Your task to perform on an android device: open app "McDonald's" (install if not already installed) Image 0: 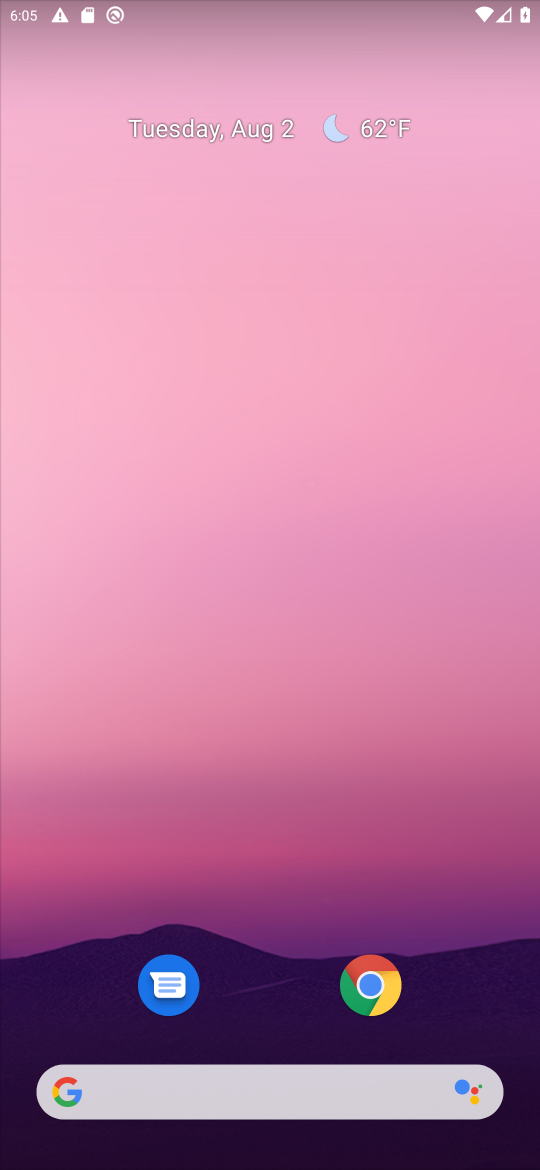
Step 0: drag from (251, 986) to (332, 279)
Your task to perform on an android device: open app "McDonald's" (install if not already installed) Image 1: 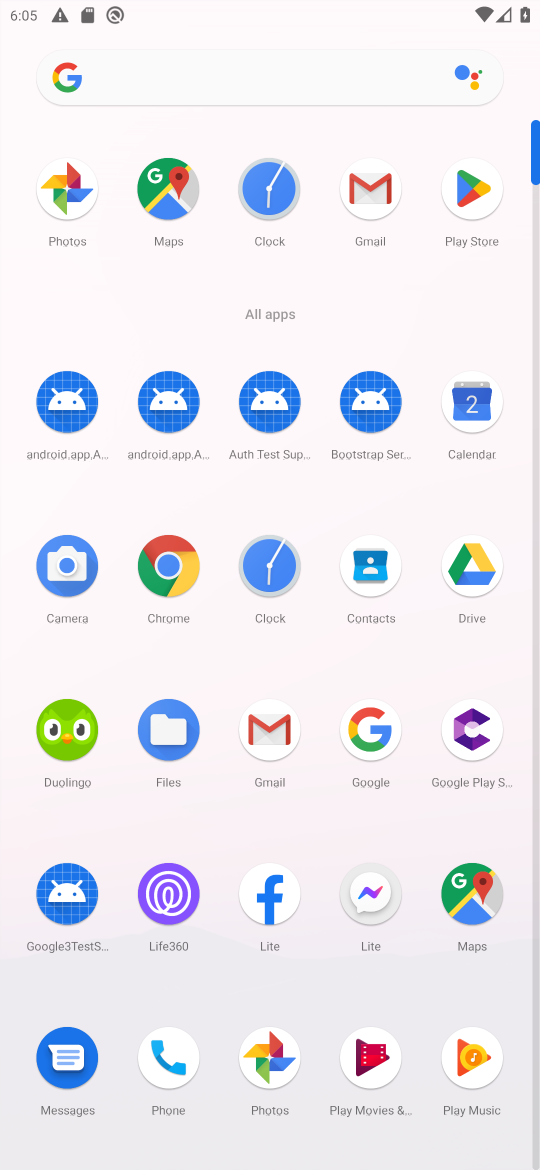
Step 1: click (456, 208)
Your task to perform on an android device: open app "McDonald's" (install if not already installed) Image 2: 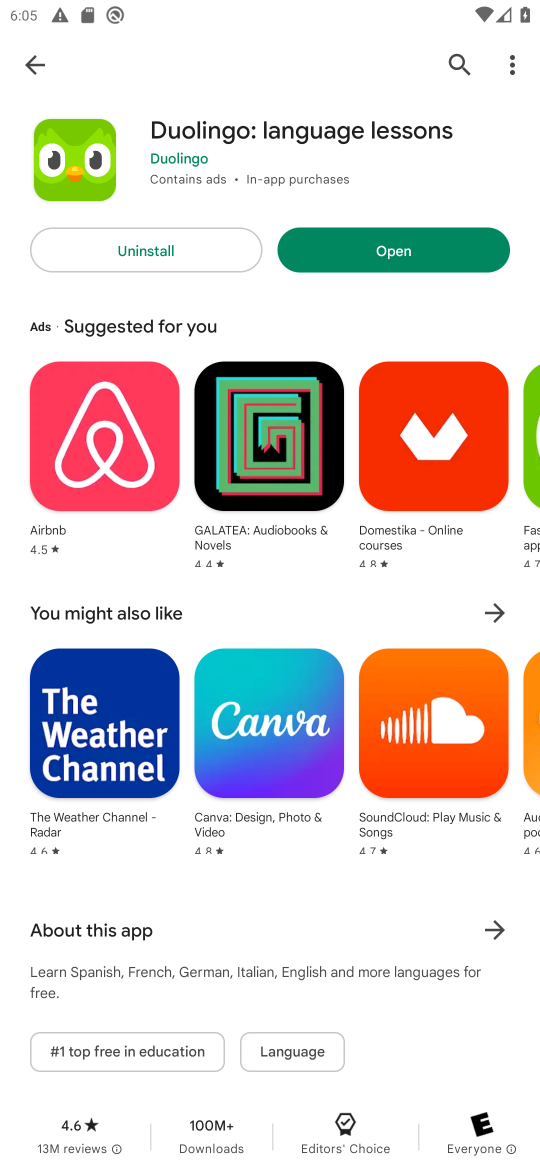
Step 2: click (443, 49)
Your task to perform on an android device: open app "McDonald's" (install if not already installed) Image 3: 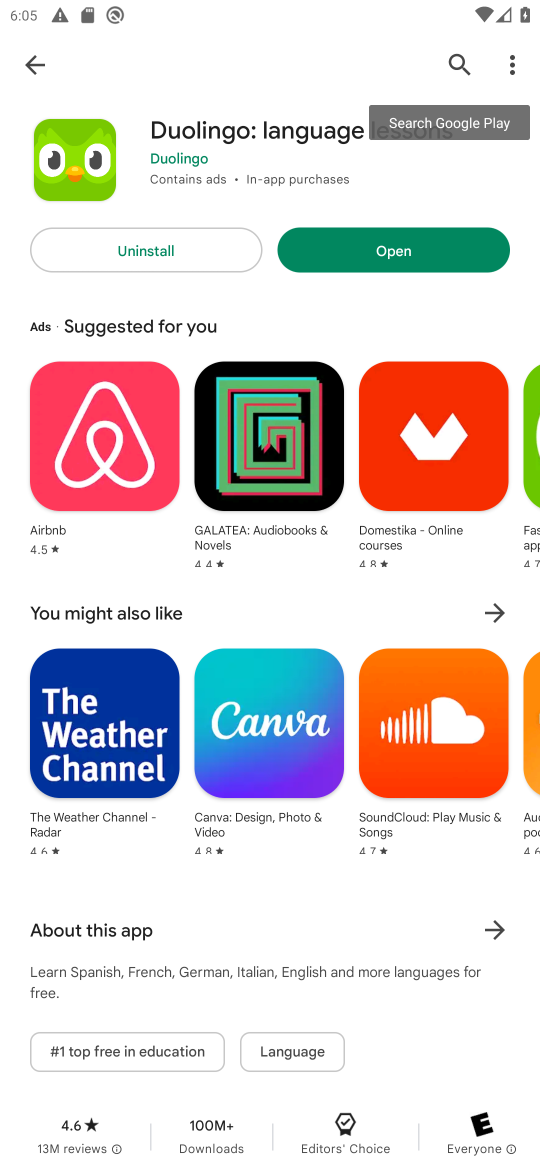
Step 3: click (453, 61)
Your task to perform on an android device: open app "McDonald's" (install if not already installed) Image 4: 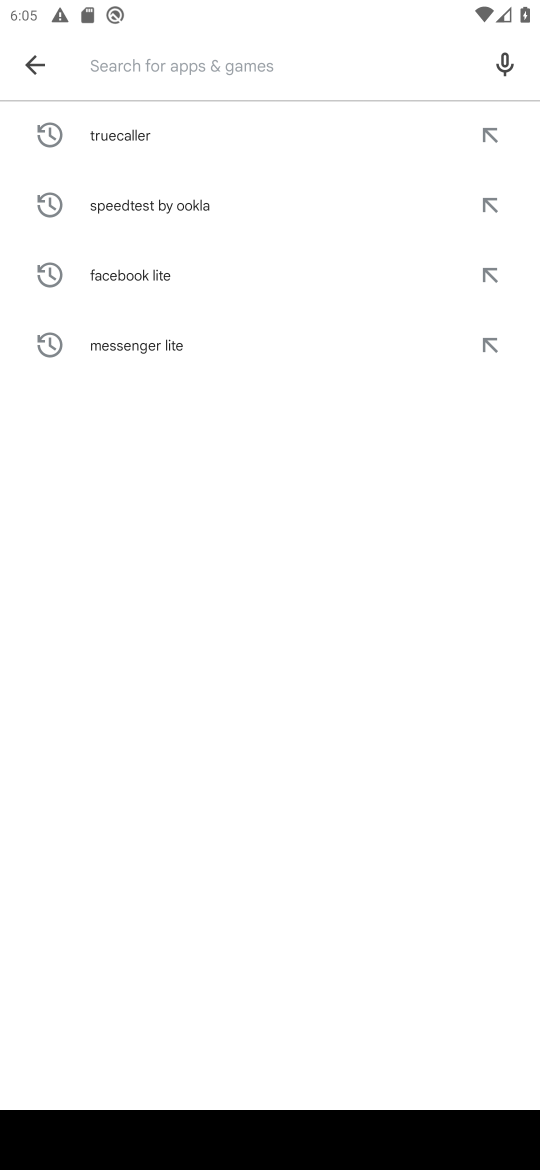
Step 4: type "McDonald's"
Your task to perform on an android device: open app "McDonald's" (install if not already installed) Image 5: 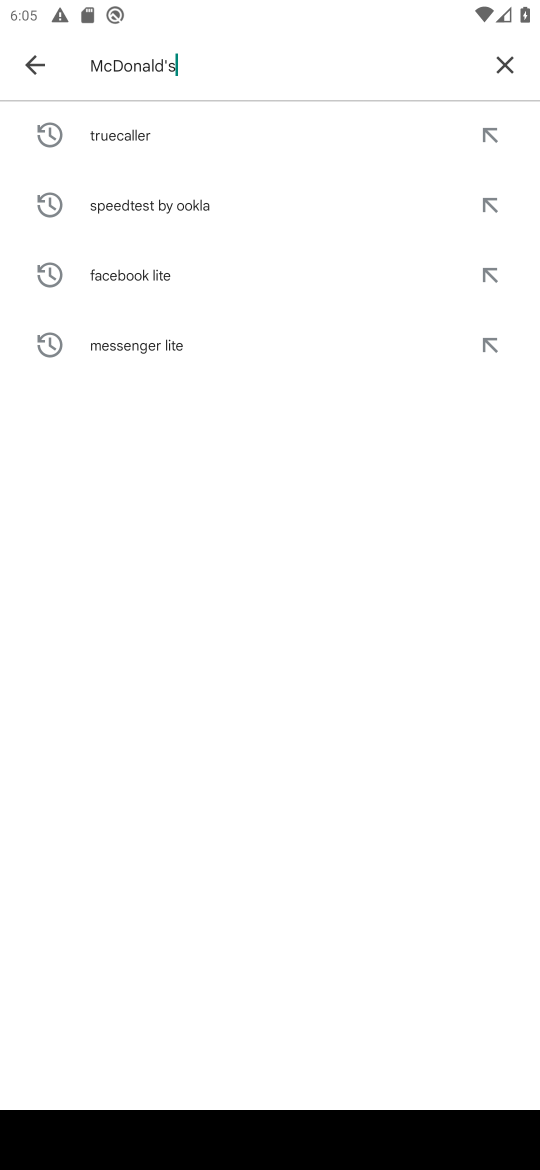
Step 5: type ""
Your task to perform on an android device: open app "McDonald's" (install if not already installed) Image 6: 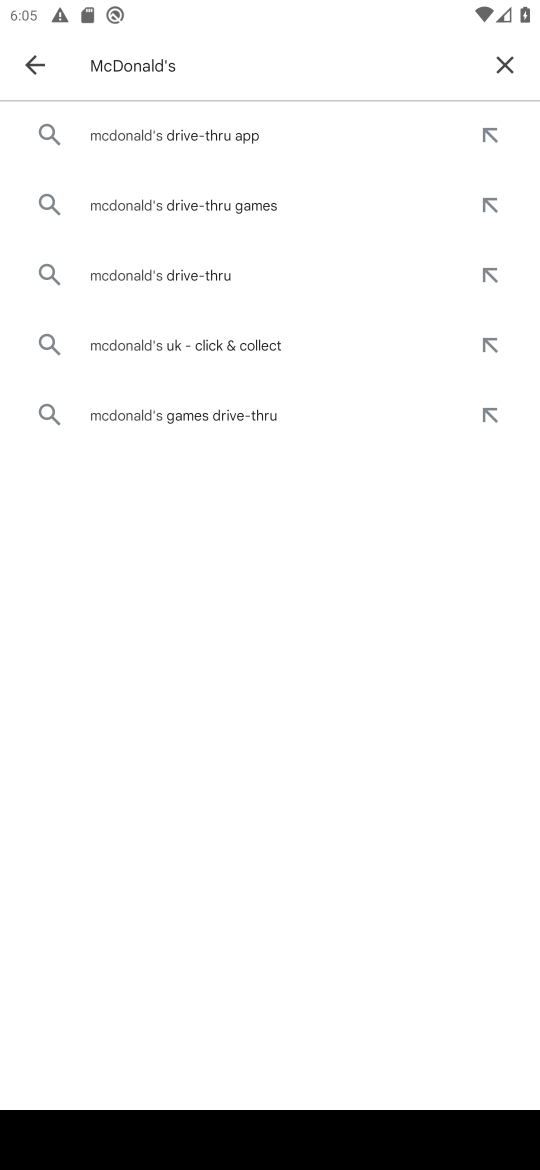
Step 6: click (173, 137)
Your task to perform on an android device: open app "McDonald's" (install if not already installed) Image 7: 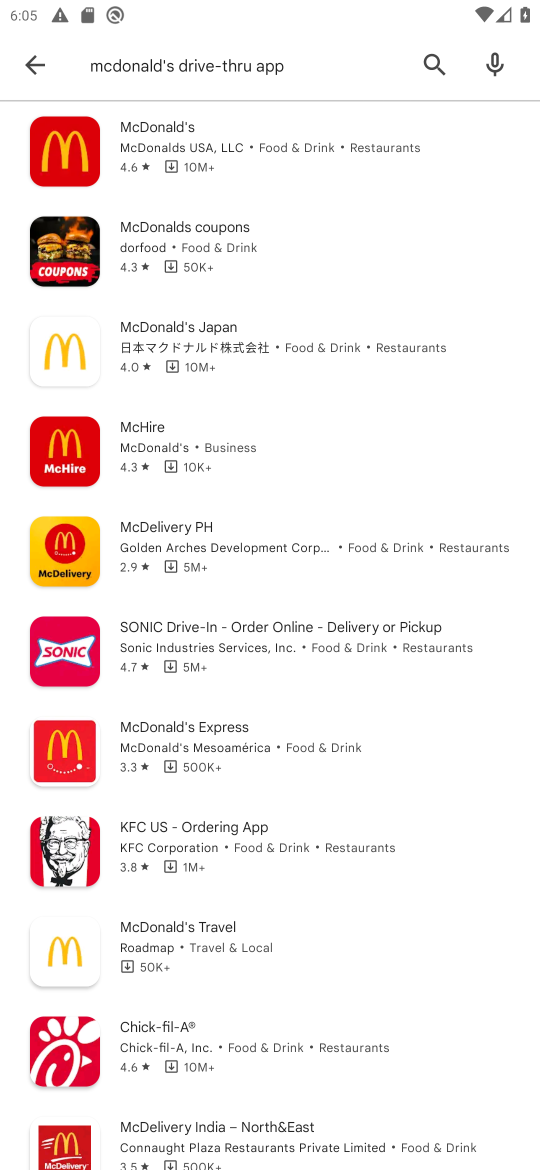
Step 7: click (153, 162)
Your task to perform on an android device: open app "McDonald's" (install if not already installed) Image 8: 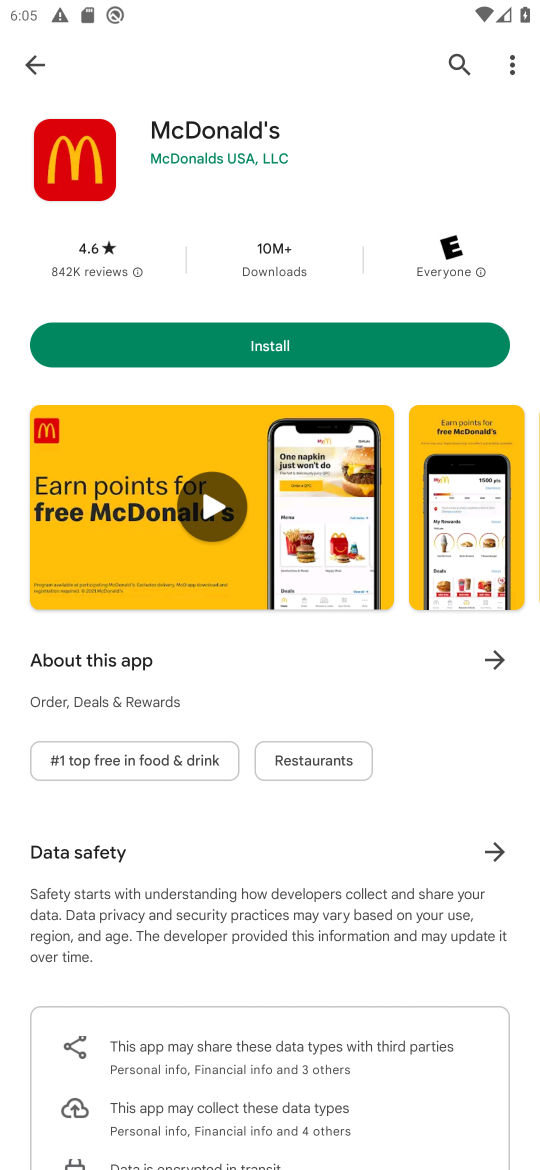
Step 8: click (256, 354)
Your task to perform on an android device: open app "McDonald's" (install if not already installed) Image 9: 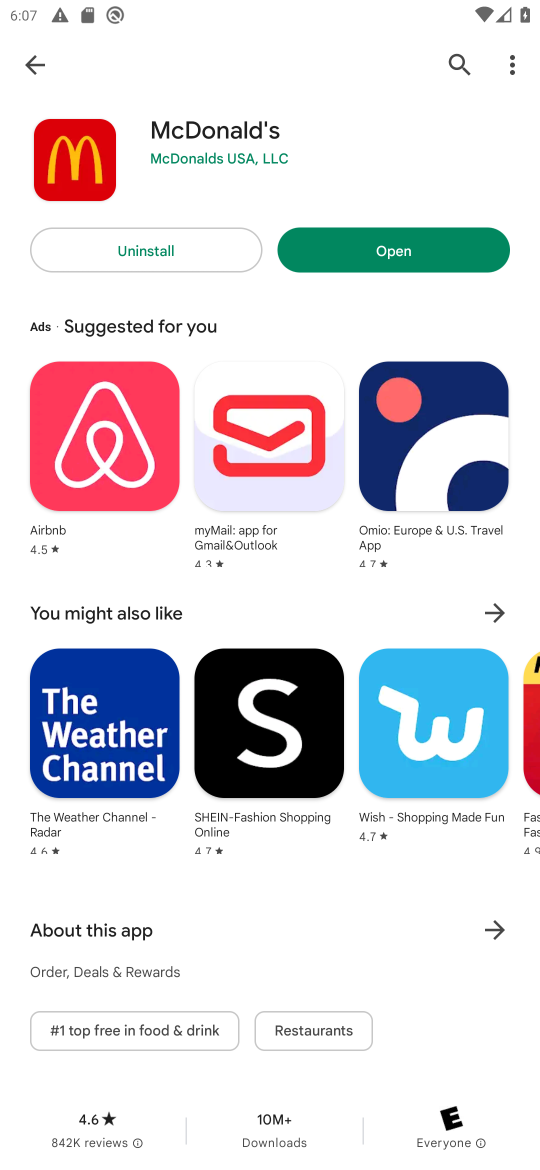
Step 9: click (353, 254)
Your task to perform on an android device: open app "McDonald's" (install if not already installed) Image 10: 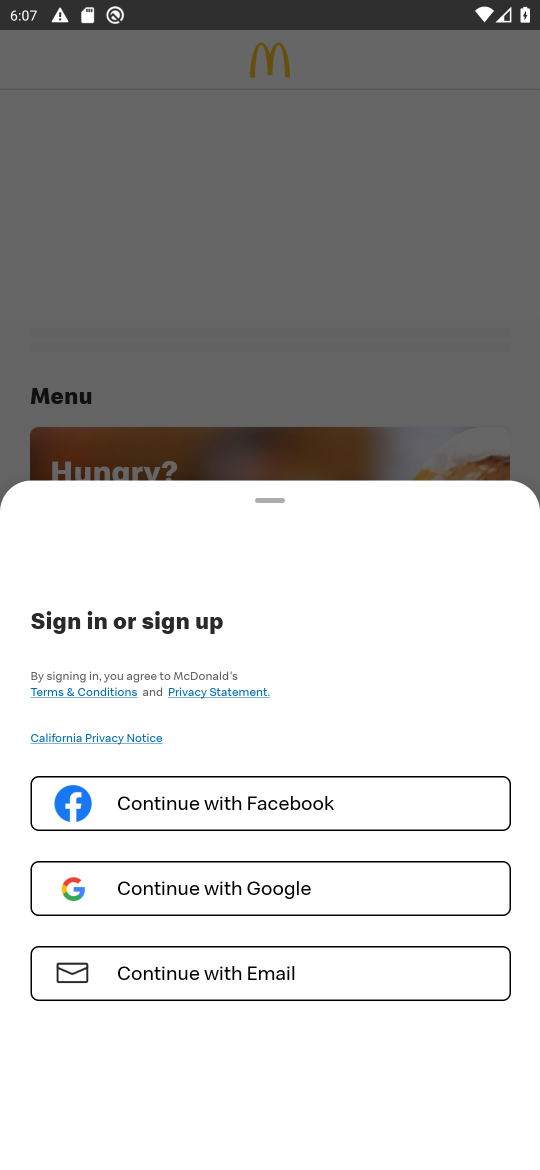
Step 10: task complete